Your task to perform on an android device: move a message to another label in the gmail app Image 0: 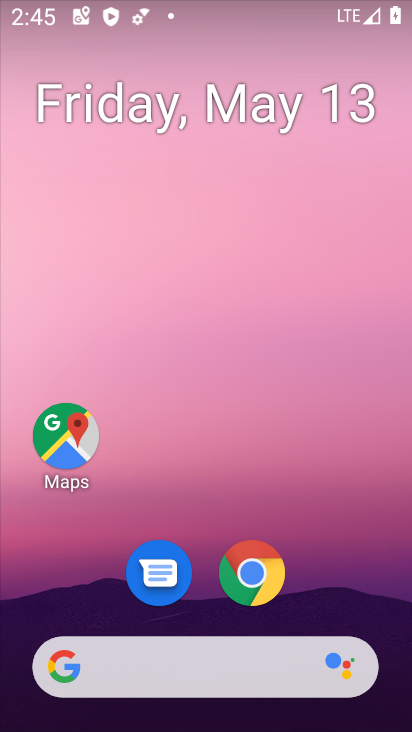
Step 0: drag from (59, 631) to (256, 122)
Your task to perform on an android device: move a message to another label in the gmail app Image 1: 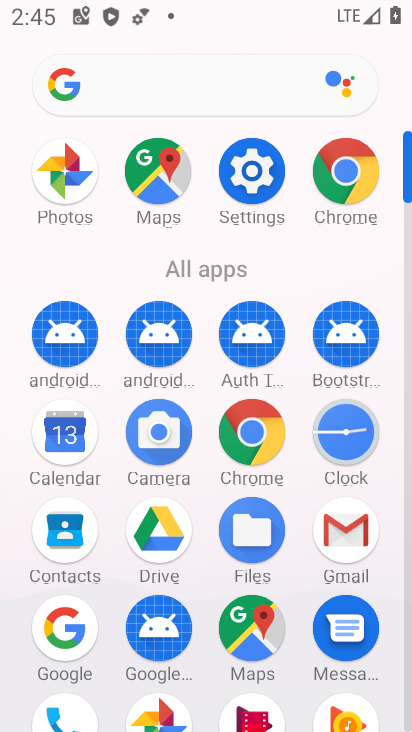
Step 1: click (350, 532)
Your task to perform on an android device: move a message to another label in the gmail app Image 2: 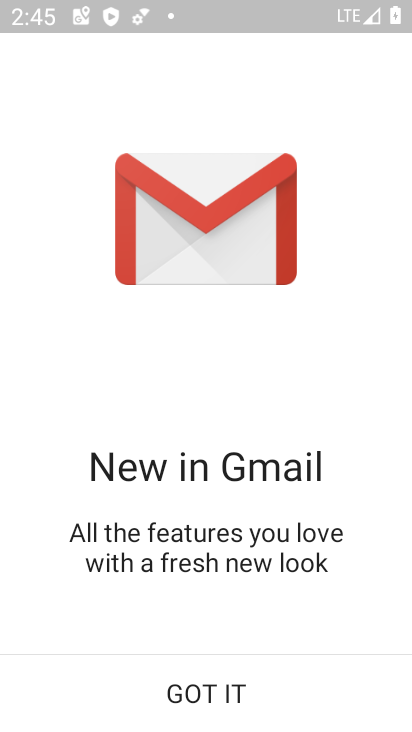
Step 2: click (252, 702)
Your task to perform on an android device: move a message to another label in the gmail app Image 3: 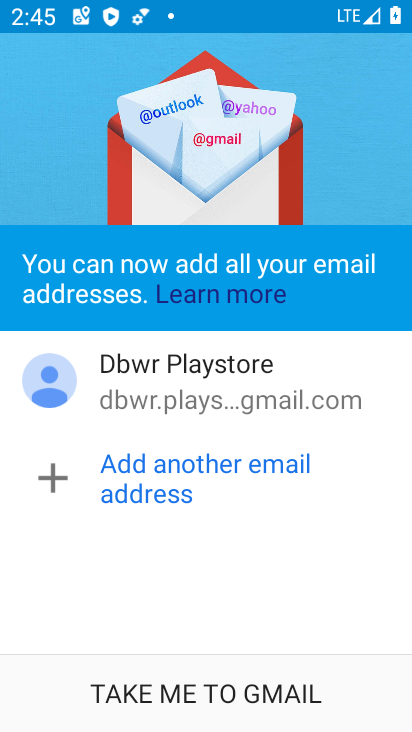
Step 3: click (256, 694)
Your task to perform on an android device: move a message to another label in the gmail app Image 4: 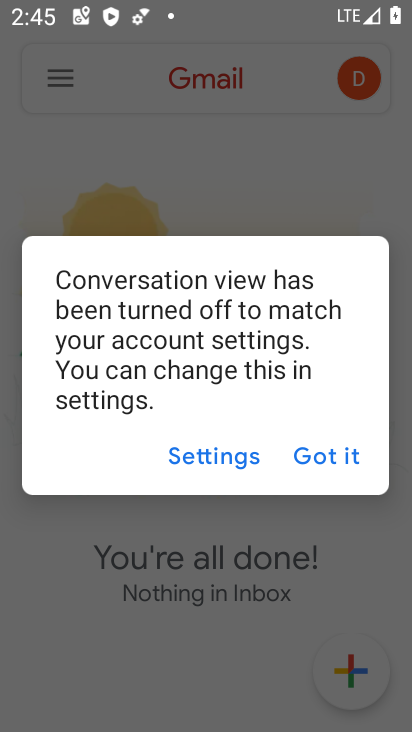
Step 4: click (325, 447)
Your task to perform on an android device: move a message to another label in the gmail app Image 5: 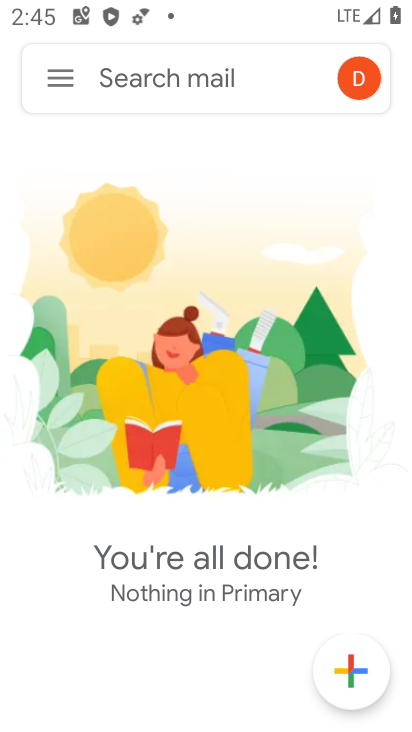
Step 5: click (55, 77)
Your task to perform on an android device: move a message to another label in the gmail app Image 6: 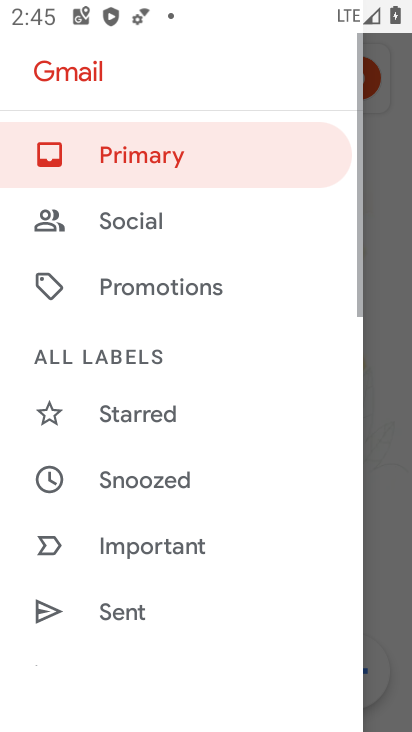
Step 6: drag from (144, 622) to (282, 337)
Your task to perform on an android device: move a message to another label in the gmail app Image 7: 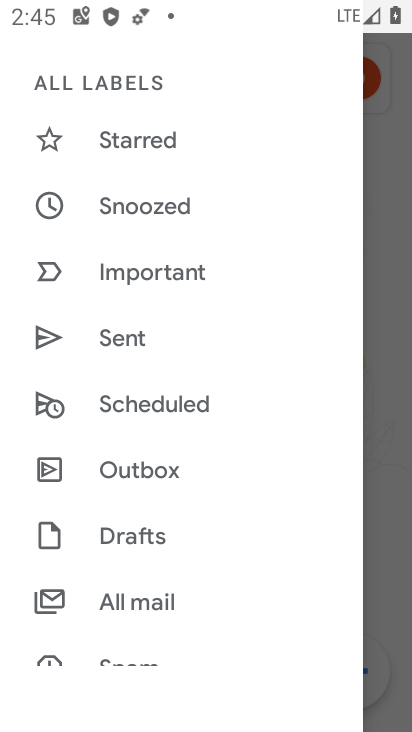
Step 7: drag from (206, 625) to (240, 480)
Your task to perform on an android device: move a message to another label in the gmail app Image 8: 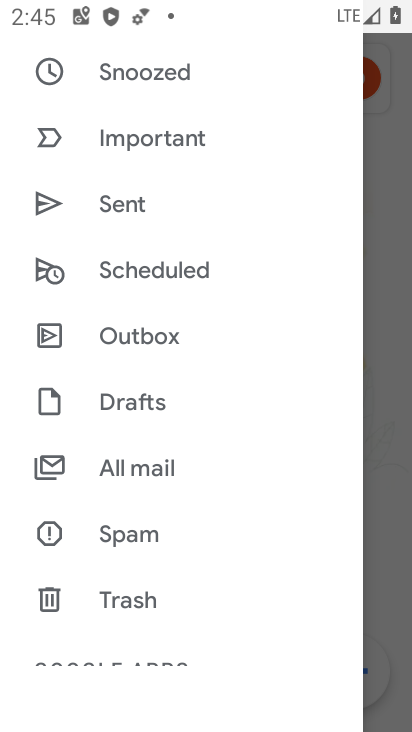
Step 8: click (227, 456)
Your task to perform on an android device: move a message to another label in the gmail app Image 9: 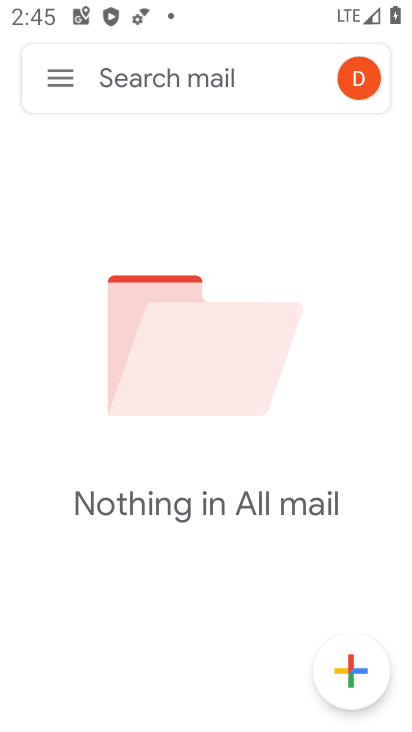
Step 9: task complete